Your task to perform on an android device: What's the weather today? Image 0: 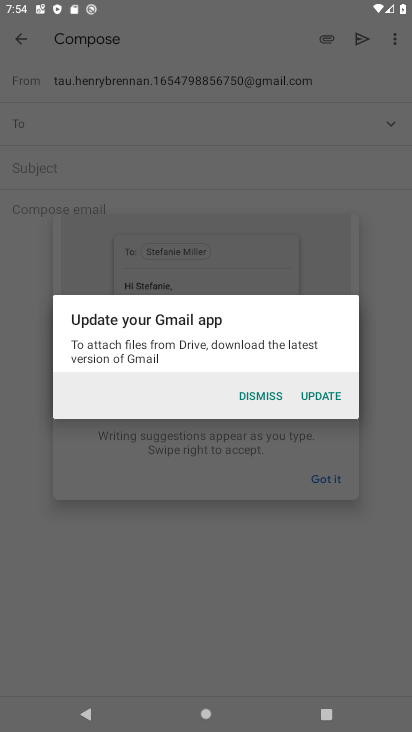
Step 0: press home button
Your task to perform on an android device: What's the weather today? Image 1: 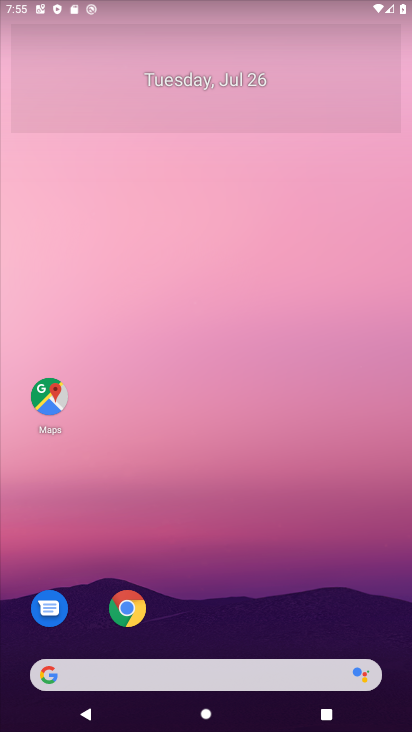
Step 1: click (105, 684)
Your task to perform on an android device: What's the weather today? Image 2: 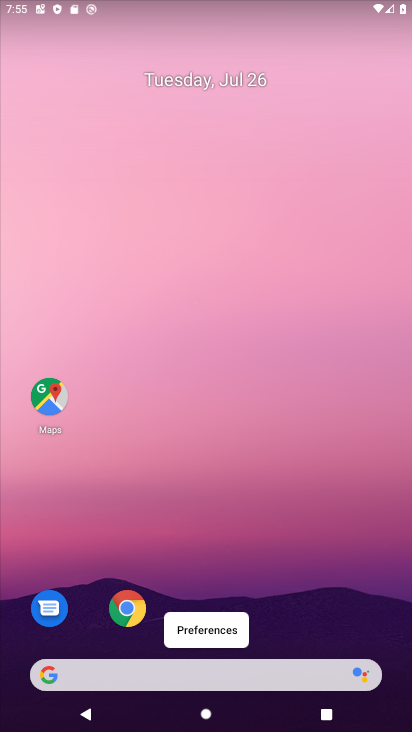
Step 2: click (98, 673)
Your task to perform on an android device: What's the weather today? Image 3: 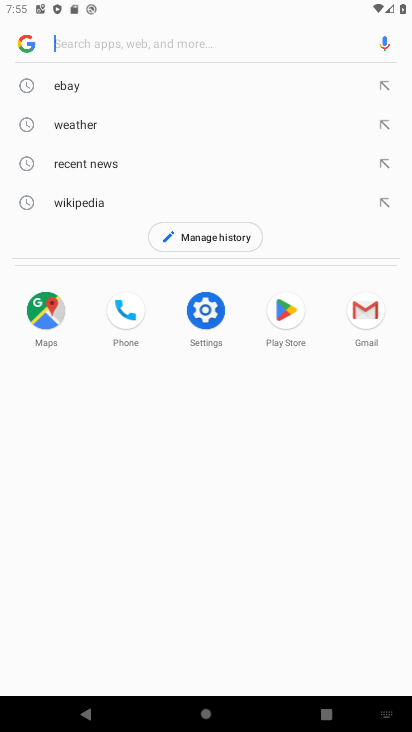
Step 3: type "What's the weather today?"
Your task to perform on an android device: What's the weather today? Image 4: 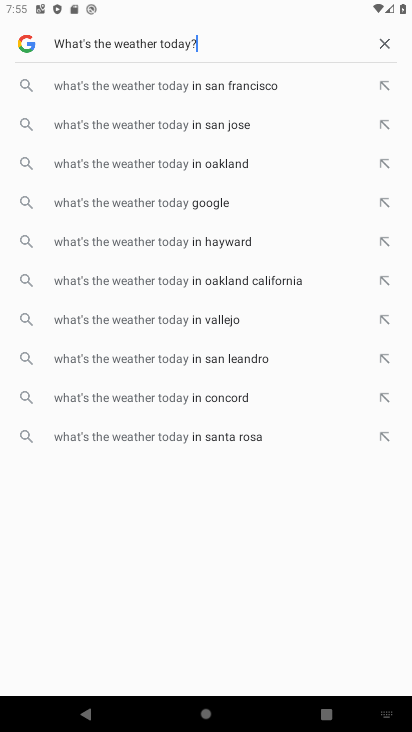
Step 4: task complete